Your task to perform on an android device: open app "ZOOM Cloud Meetings" (install if not already installed) Image 0: 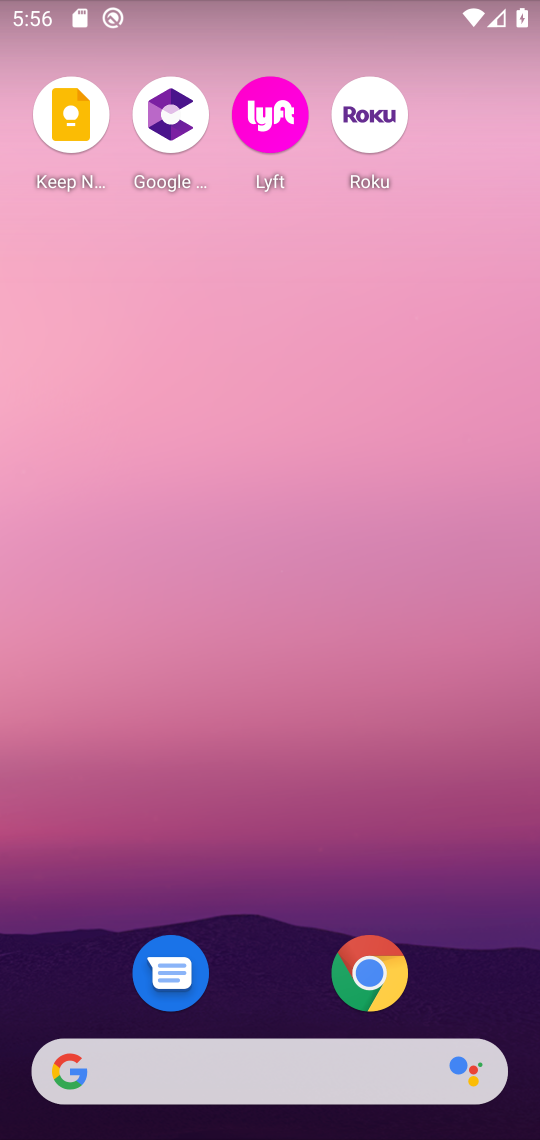
Step 0: drag from (269, 952) to (293, 169)
Your task to perform on an android device: open app "ZOOM Cloud Meetings" (install if not already installed) Image 1: 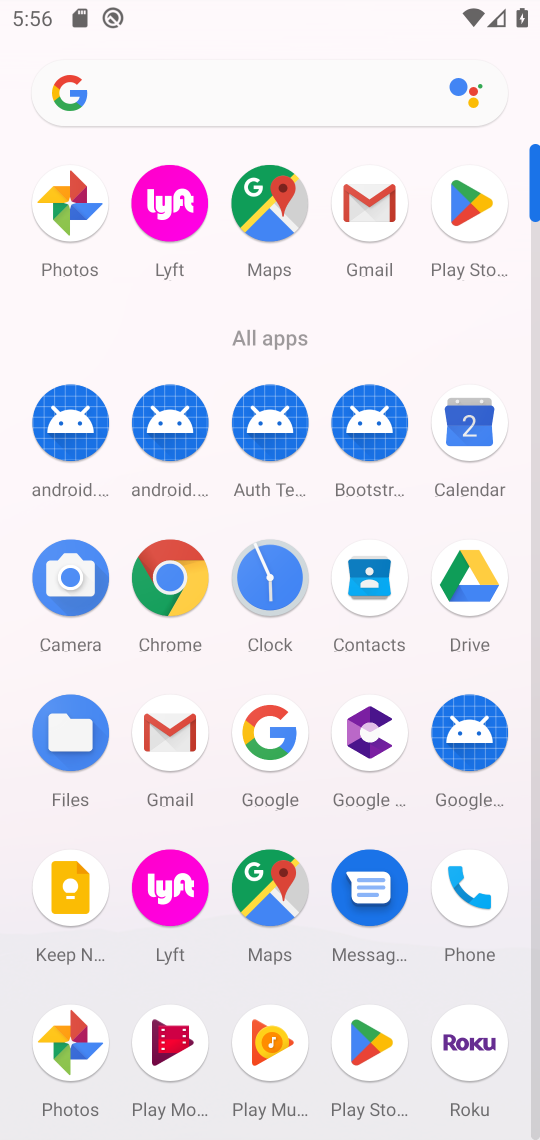
Step 1: click (472, 201)
Your task to perform on an android device: open app "ZOOM Cloud Meetings" (install if not already installed) Image 2: 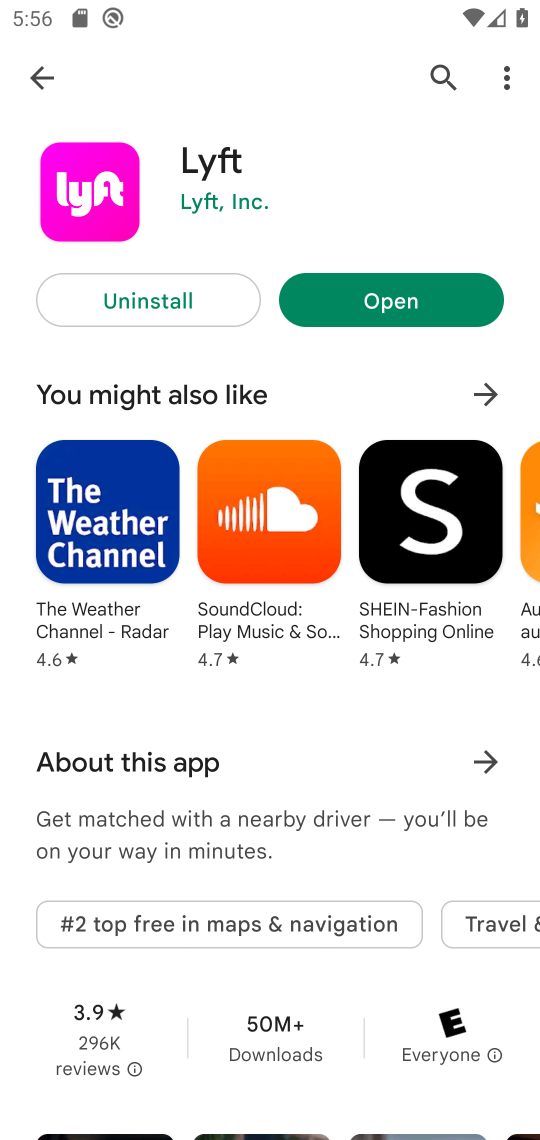
Step 2: click (447, 60)
Your task to perform on an android device: open app "ZOOM Cloud Meetings" (install if not already installed) Image 3: 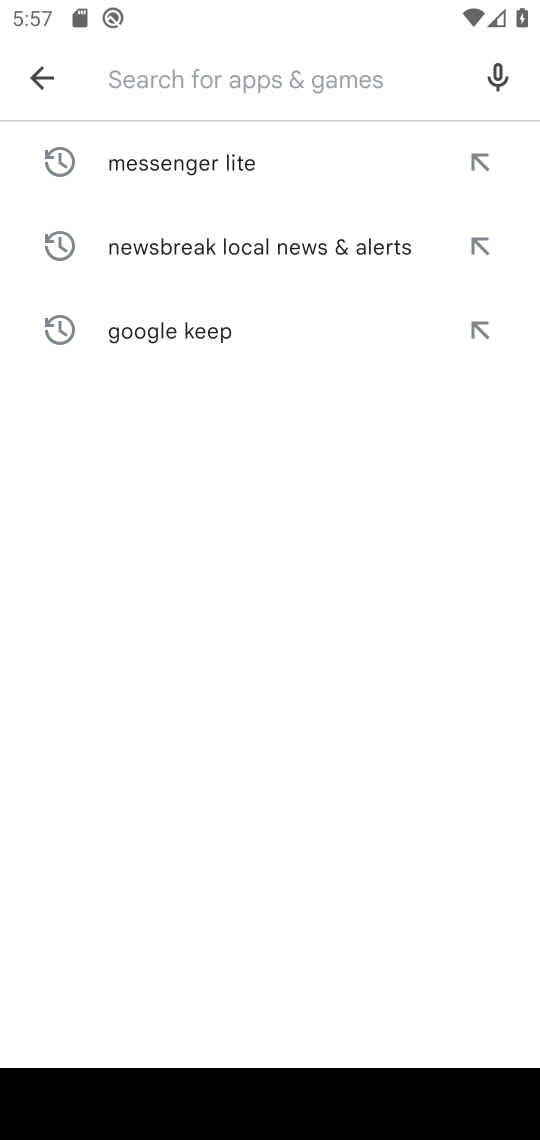
Step 3: type "zoom cloud meetings"
Your task to perform on an android device: open app "ZOOM Cloud Meetings" (install if not already installed) Image 4: 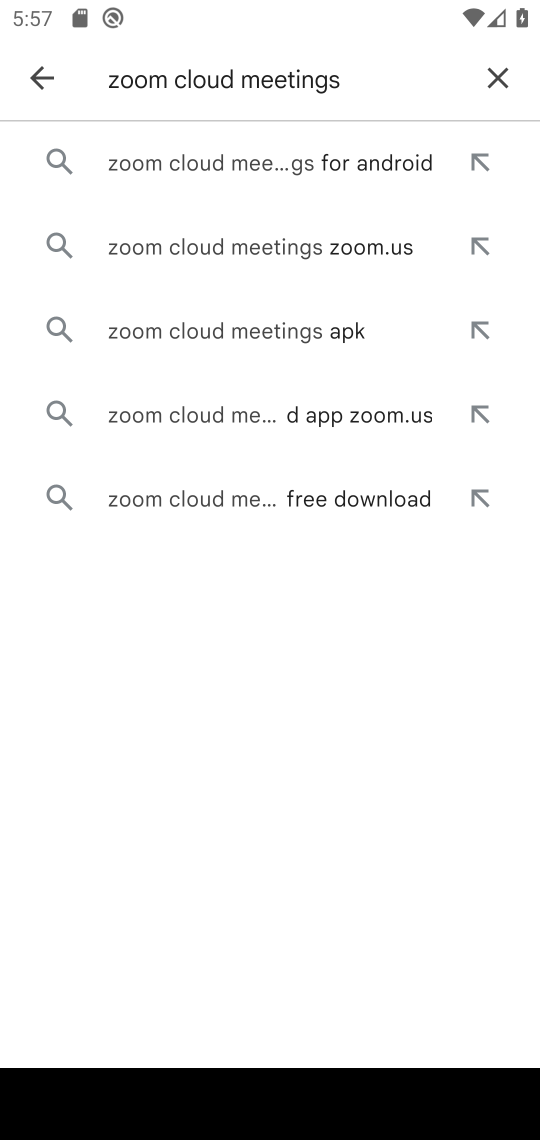
Step 4: click (318, 170)
Your task to perform on an android device: open app "ZOOM Cloud Meetings" (install if not already installed) Image 5: 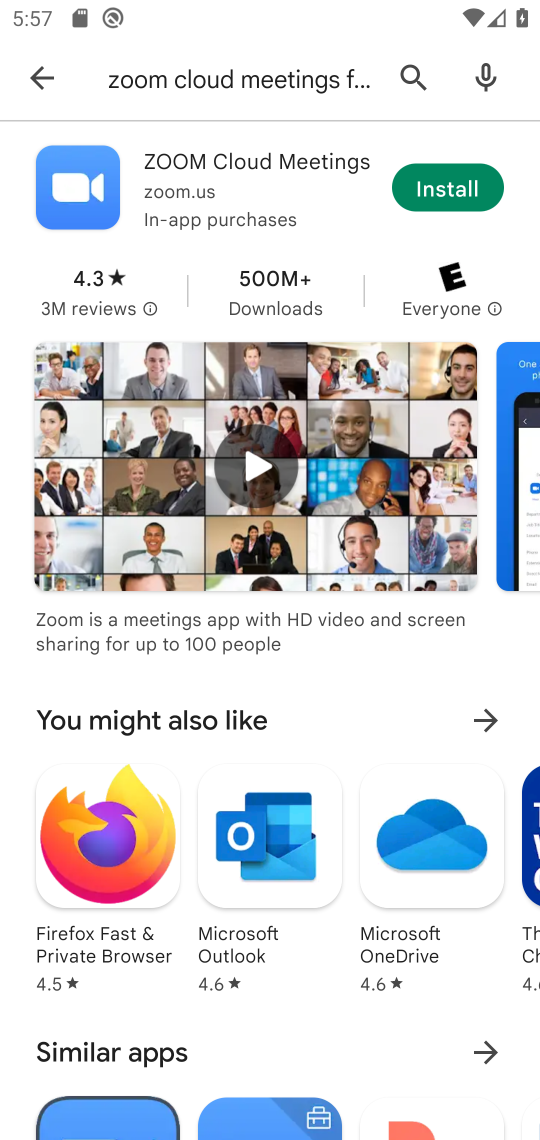
Step 5: click (457, 191)
Your task to perform on an android device: open app "ZOOM Cloud Meetings" (install if not already installed) Image 6: 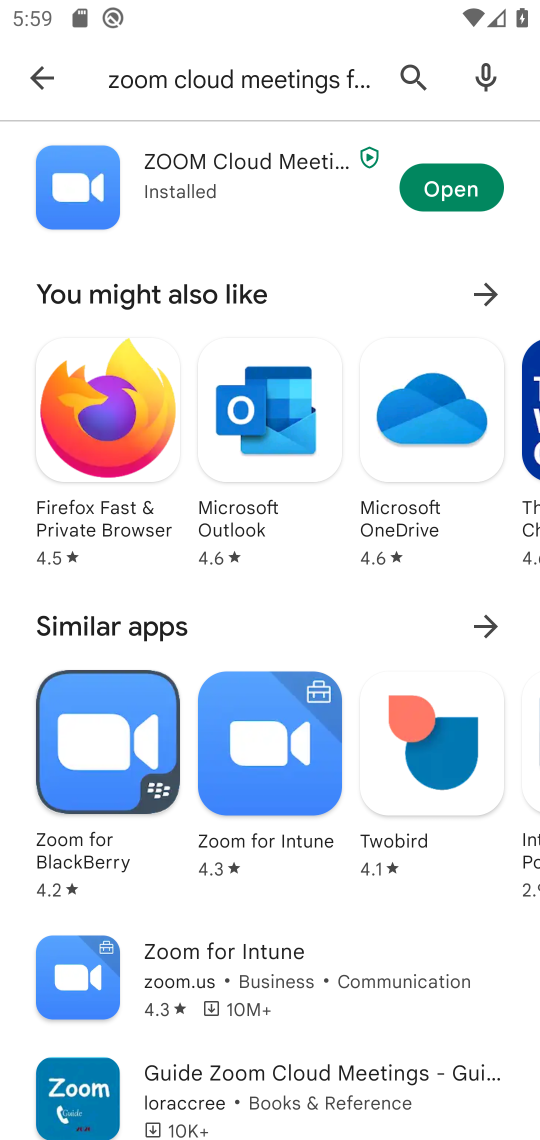
Step 6: task complete